Your task to perform on an android device: turn off data saver in the chrome app Image 0: 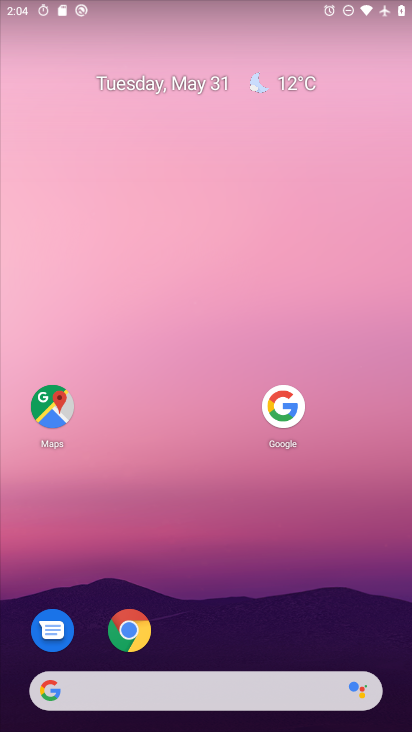
Step 0: click (132, 636)
Your task to perform on an android device: turn off data saver in the chrome app Image 1: 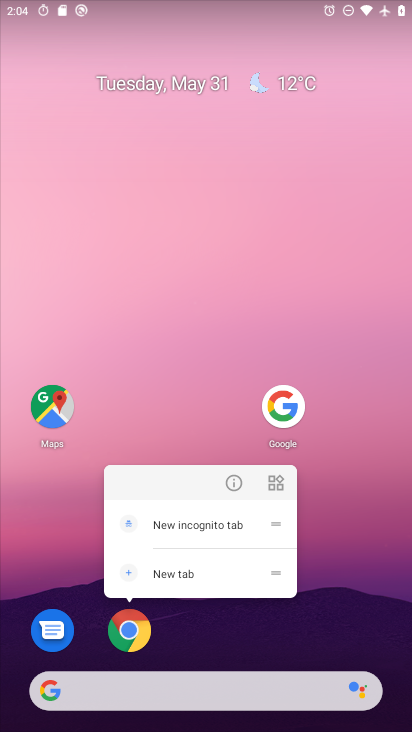
Step 1: click (132, 637)
Your task to perform on an android device: turn off data saver in the chrome app Image 2: 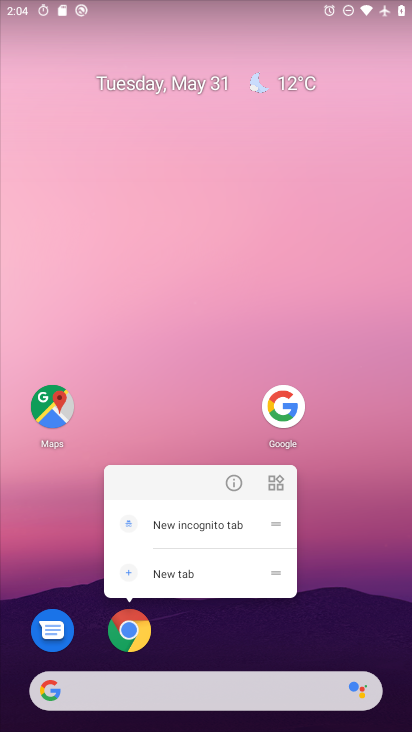
Step 2: click (132, 638)
Your task to perform on an android device: turn off data saver in the chrome app Image 3: 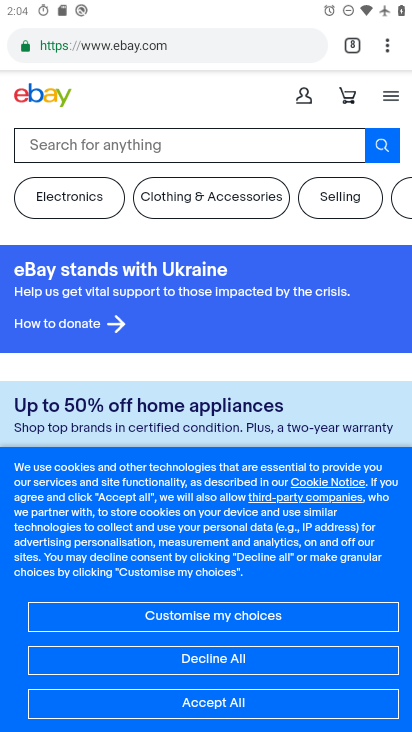
Step 3: drag from (387, 48) to (286, 606)
Your task to perform on an android device: turn off data saver in the chrome app Image 4: 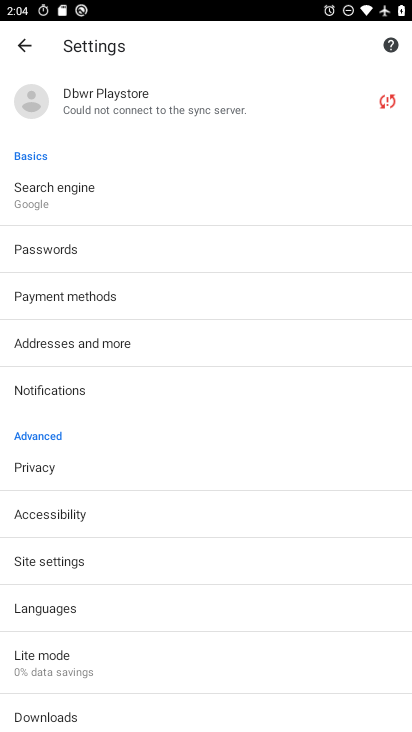
Step 4: click (58, 664)
Your task to perform on an android device: turn off data saver in the chrome app Image 5: 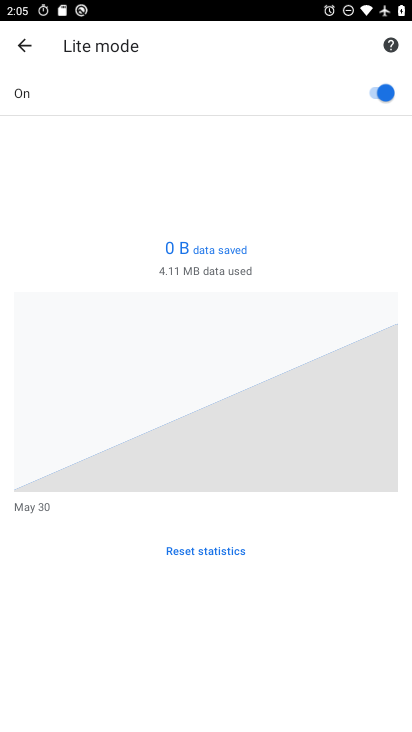
Step 5: click (372, 92)
Your task to perform on an android device: turn off data saver in the chrome app Image 6: 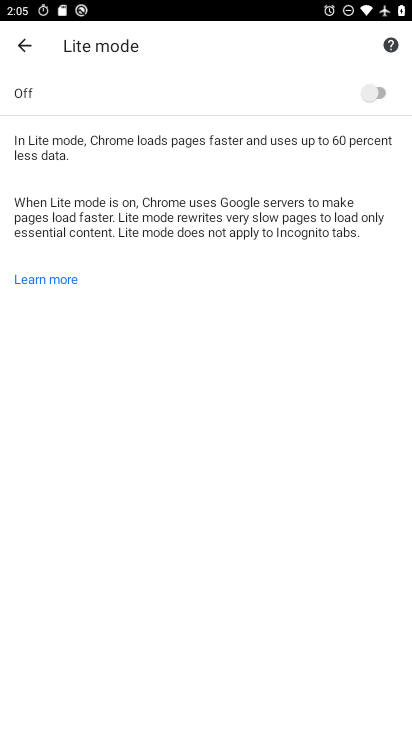
Step 6: task complete